Your task to perform on an android device: change keyboard looks Image 0: 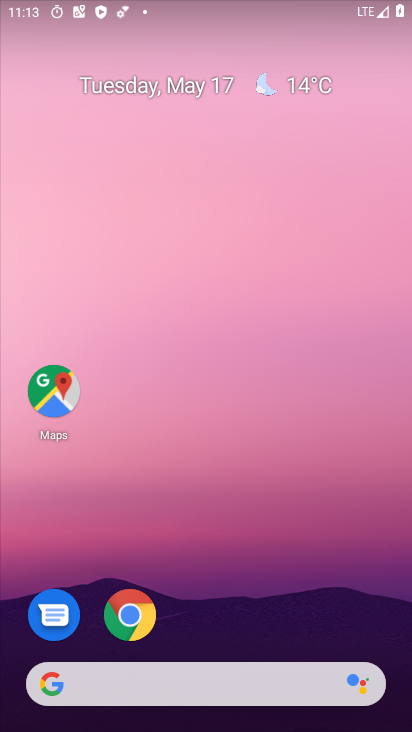
Step 0: press home button
Your task to perform on an android device: change keyboard looks Image 1: 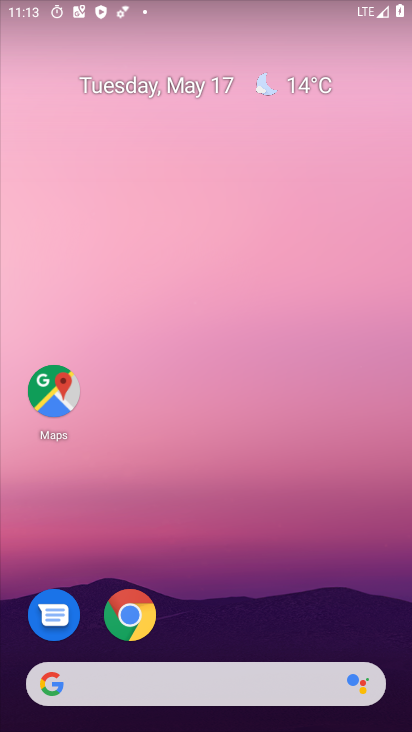
Step 1: drag from (157, 638) to (275, 179)
Your task to perform on an android device: change keyboard looks Image 2: 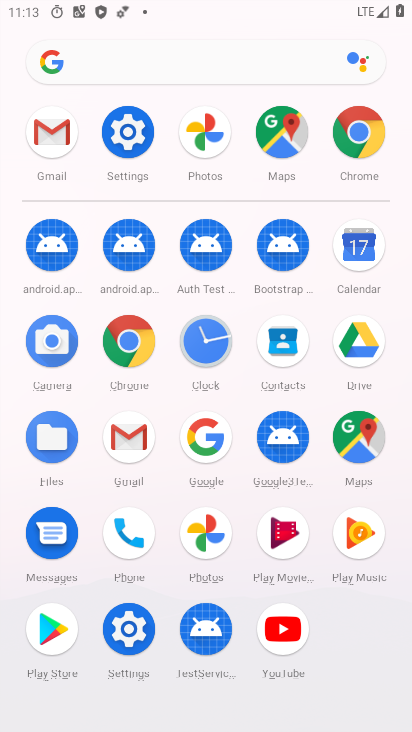
Step 2: click (121, 139)
Your task to perform on an android device: change keyboard looks Image 3: 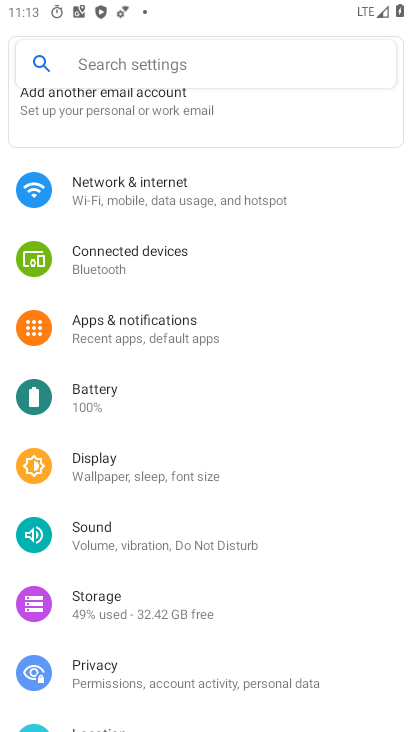
Step 3: drag from (283, 607) to (303, 167)
Your task to perform on an android device: change keyboard looks Image 4: 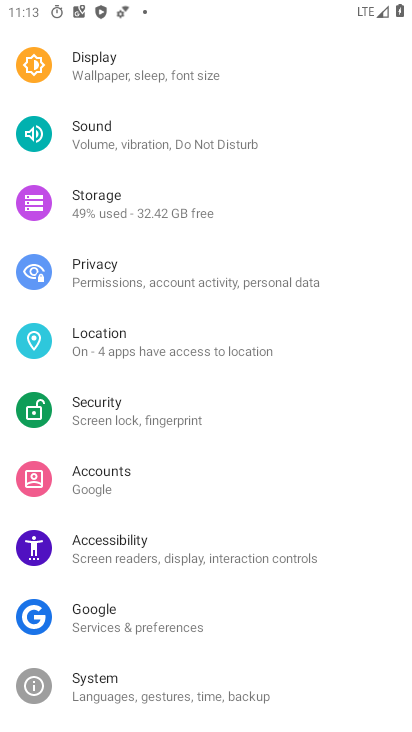
Step 4: drag from (300, 552) to (356, 237)
Your task to perform on an android device: change keyboard looks Image 5: 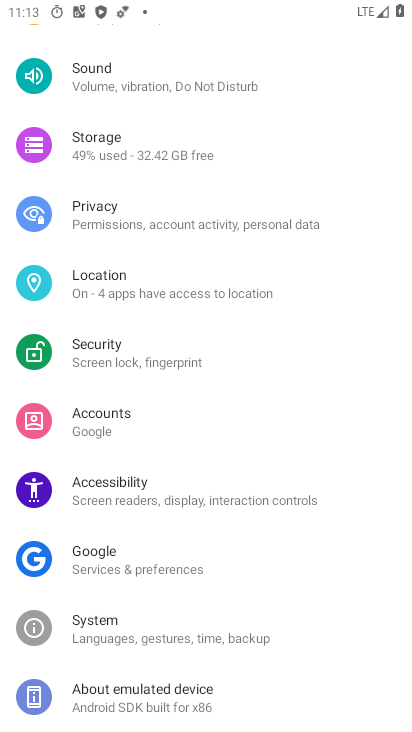
Step 5: click (165, 637)
Your task to perform on an android device: change keyboard looks Image 6: 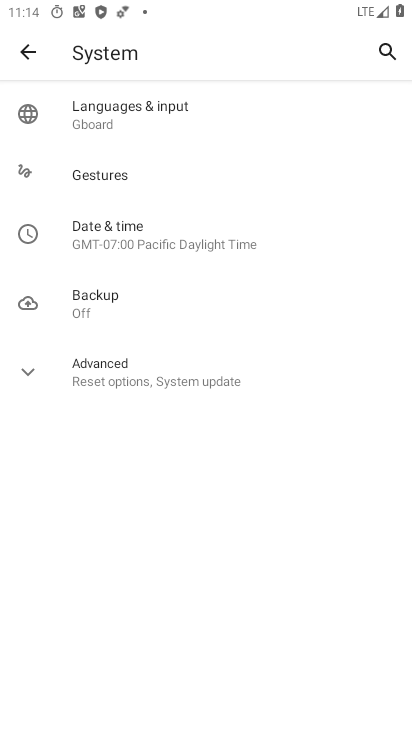
Step 6: click (137, 119)
Your task to perform on an android device: change keyboard looks Image 7: 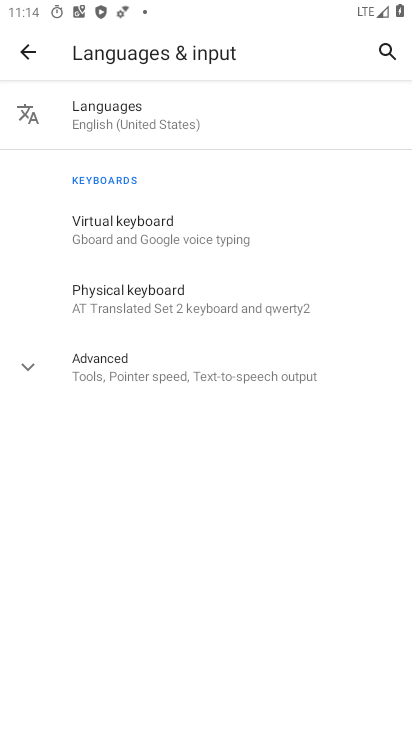
Step 7: click (154, 236)
Your task to perform on an android device: change keyboard looks Image 8: 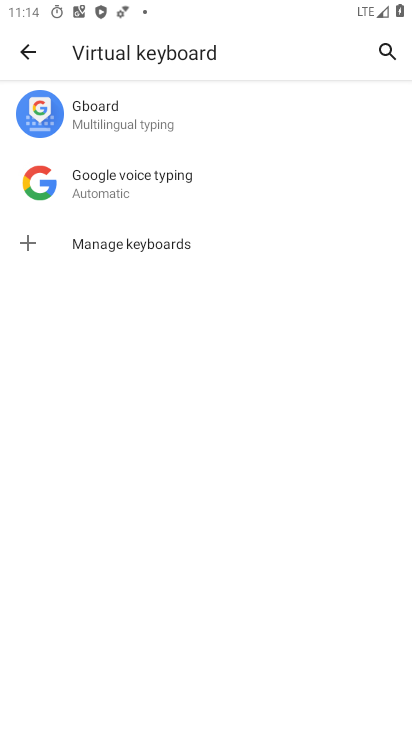
Step 8: click (126, 124)
Your task to perform on an android device: change keyboard looks Image 9: 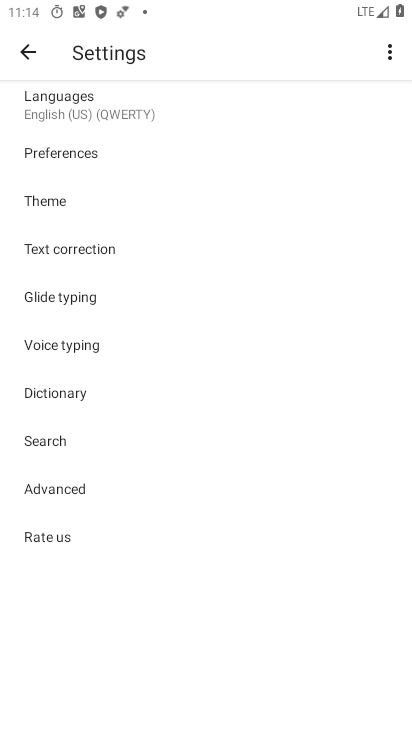
Step 9: click (62, 192)
Your task to perform on an android device: change keyboard looks Image 10: 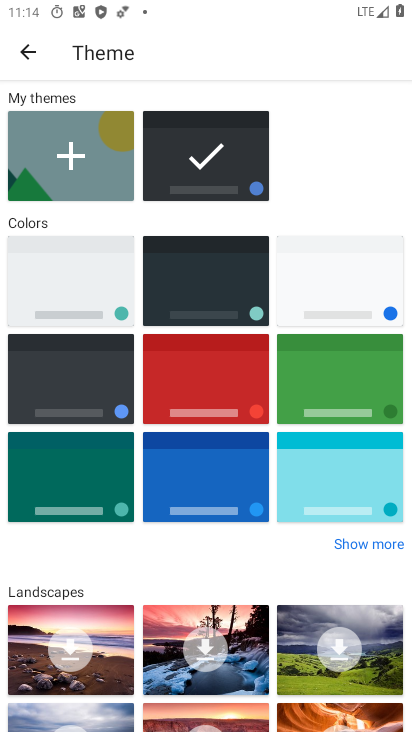
Step 10: click (306, 469)
Your task to perform on an android device: change keyboard looks Image 11: 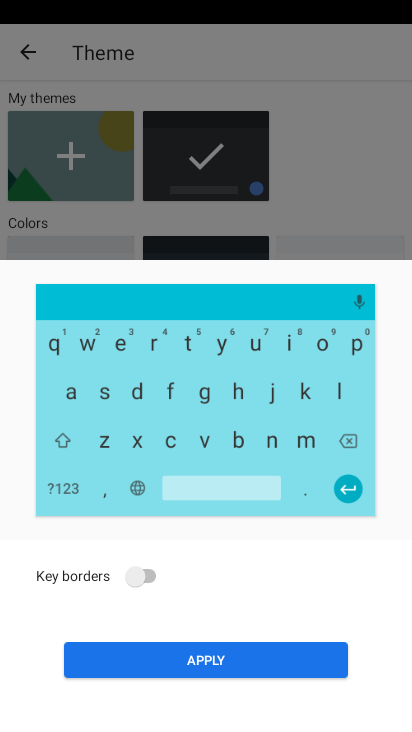
Step 11: click (244, 664)
Your task to perform on an android device: change keyboard looks Image 12: 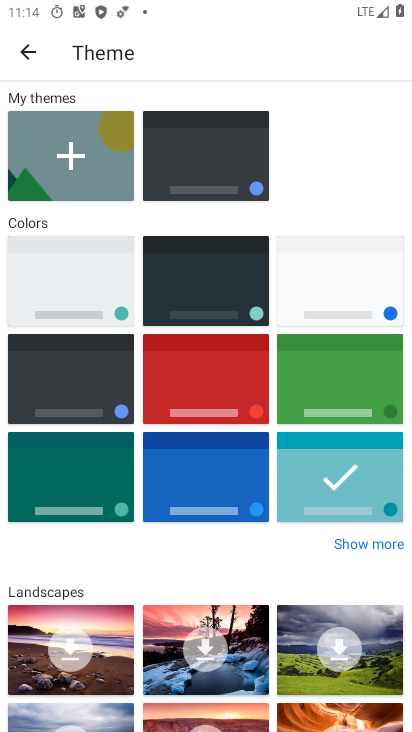
Step 12: task complete